Your task to perform on an android device: turn on priority inbox in the gmail app Image 0: 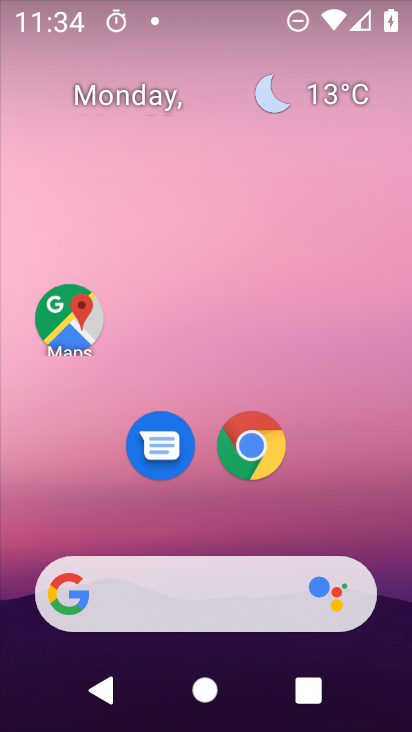
Step 0: drag from (214, 447) to (321, 33)
Your task to perform on an android device: turn on priority inbox in the gmail app Image 1: 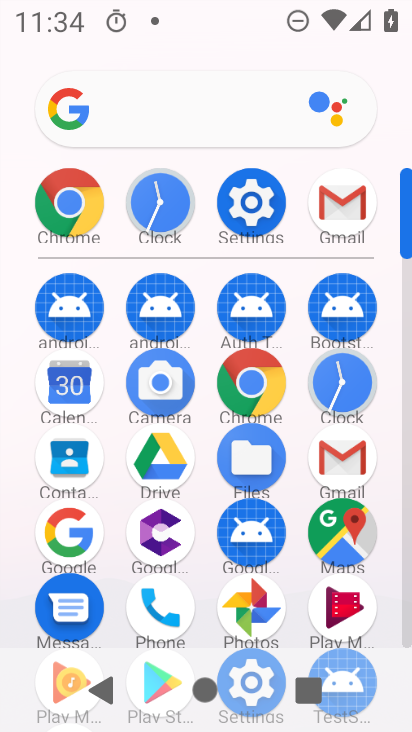
Step 1: click (332, 198)
Your task to perform on an android device: turn on priority inbox in the gmail app Image 2: 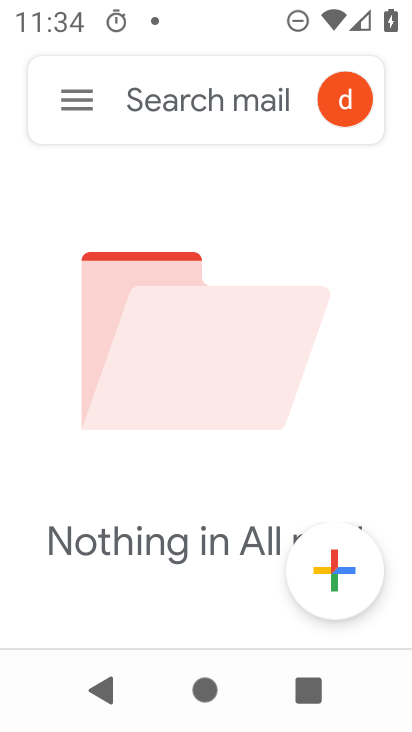
Step 2: click (80, 98)
Your task to perform on an android device: turn on priority inbox in the gmail app Image 3: 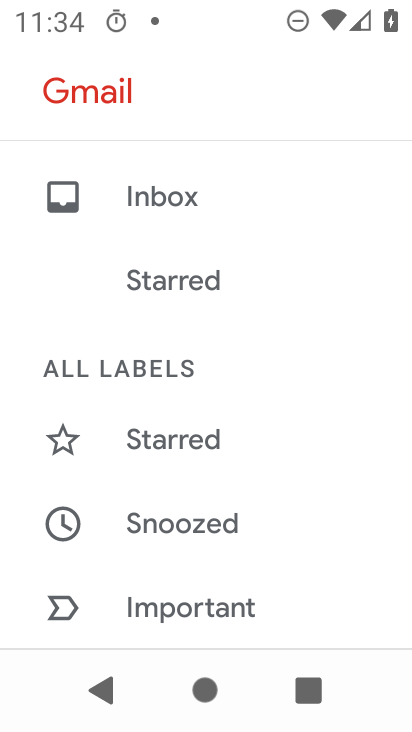
Step 3: drag from (172, 599) to (262, 91)
Your task to perform on an android device: turn on priority inbox in the gmail app Image 4: 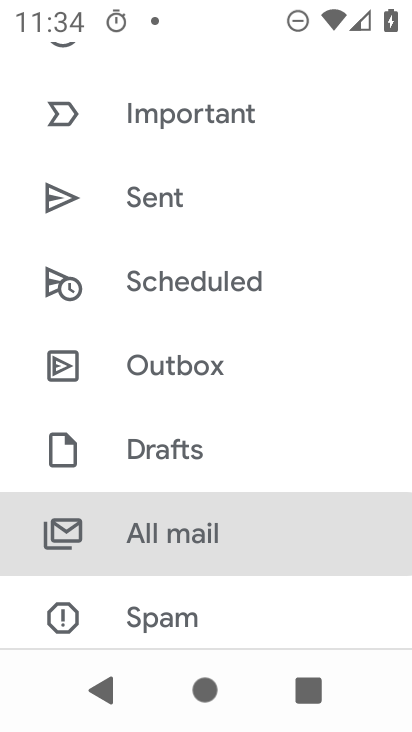
Step 4: drag from (218, 495) to (291, 1)
Your task to perform on an android device: turn on priority inbox in the gmail app Image 5: 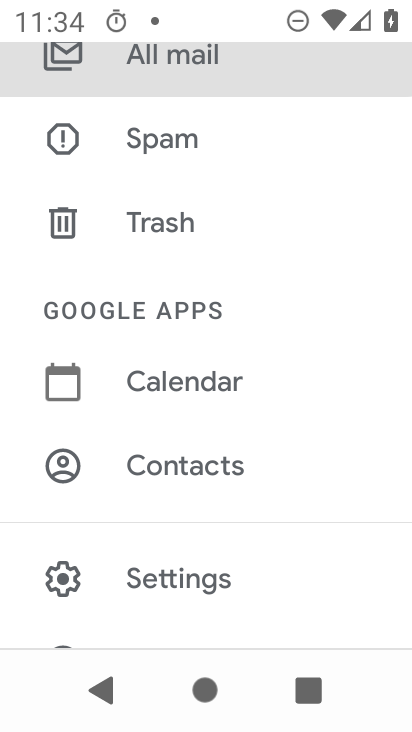
Step 5: click (185, 580)
Your task to perform on an android device: turn on priority inbox in the gmail app Image 6: 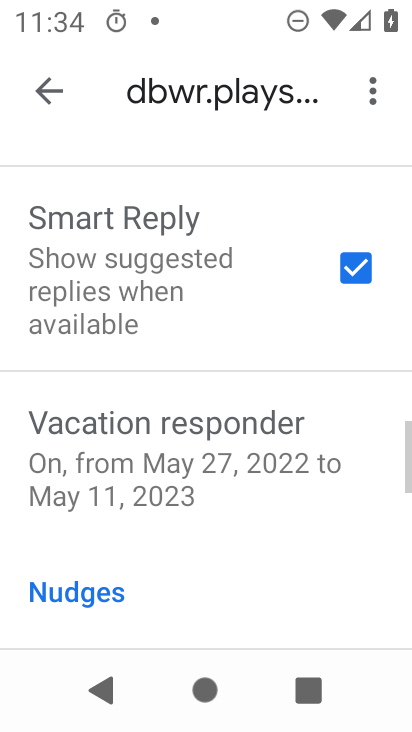
Step 6: drag from (176, 234) to (191, 713)
Your task to perform on an android device: turn on priority inbox in the gmail app Image 7: 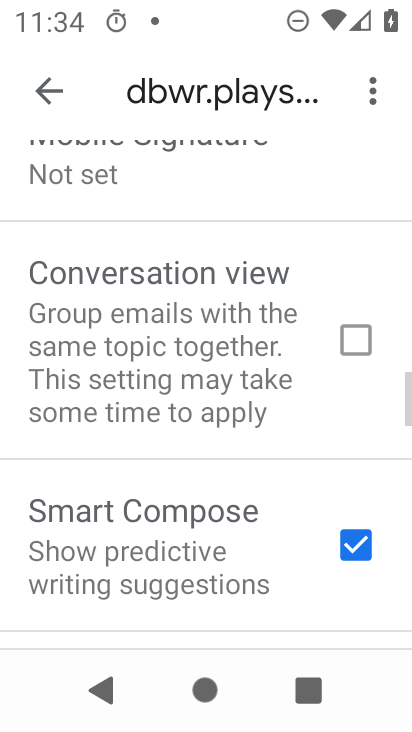
Step 7: drag from (220, 254) to (176, 695)
Your task to perform on an android device: turn on priority inbox in the gmail app Image 8: 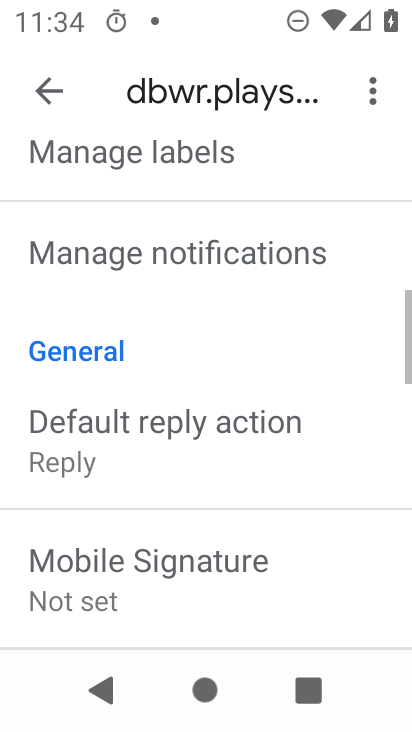
Step 8: drag from (198, 265) to (126, 724)
Your task to perform on an android device: turn on priority inbox in the gmail app Image 9: 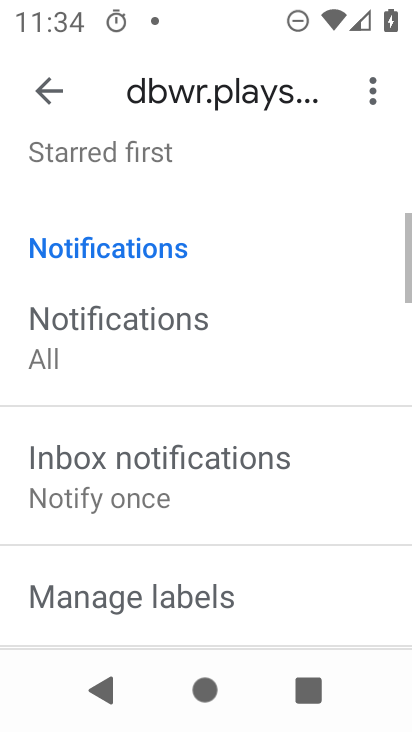
Step 9: drag from (183, 235) to (161, 695)
Your task to perform on an android device: turn on priority inbox in the gmail app Image 10: 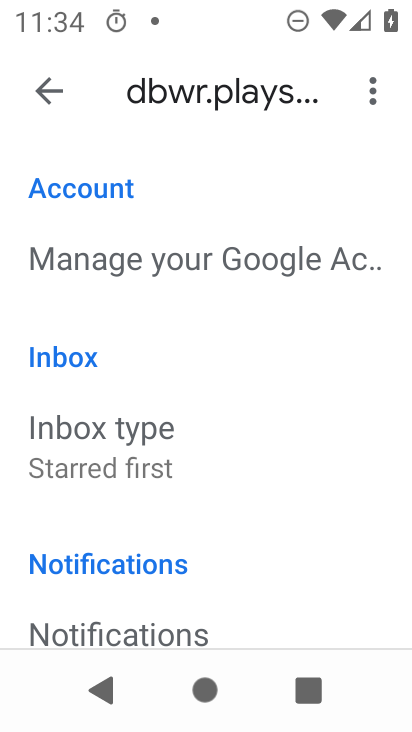
Step 10: drag from (181, 249) to (155, 701)
Your task to perform on an android device: turn on priority inbox in the gmail app Image 11: 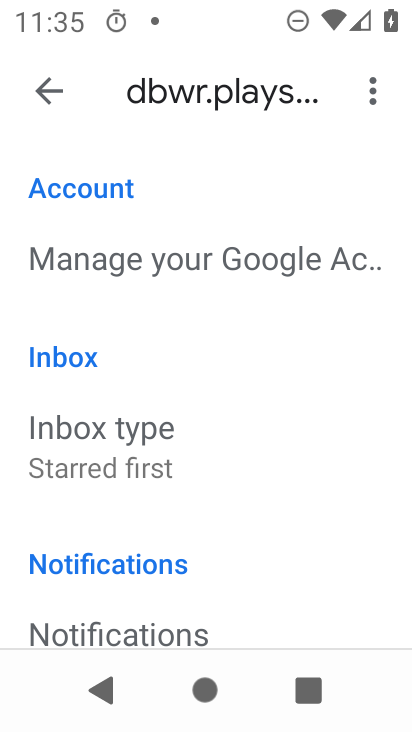
Step 11: click (139, 462)
Your task to perform on an android device: turn on priority inbox in the gmail app Image 12: 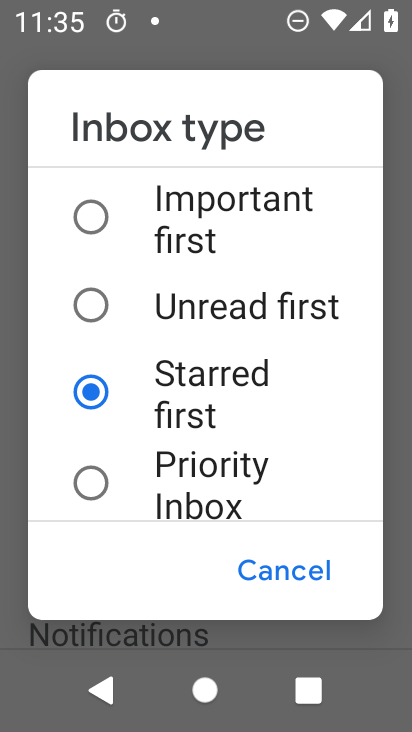
Step 12: click (96, 481)
Your task to perform on an android device: turn on priority inbox in the gmail app Image 13: 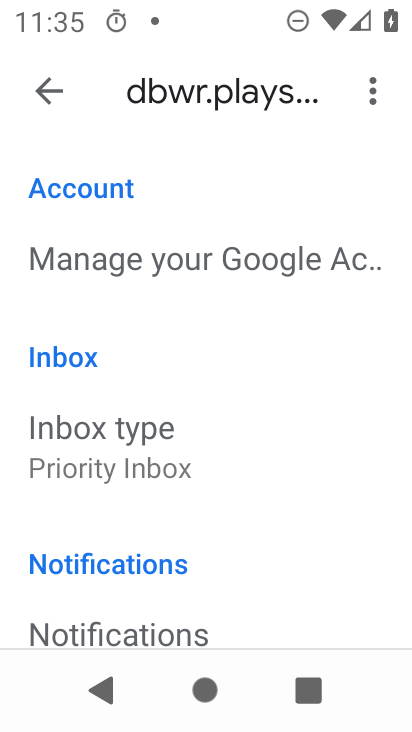
Step 13: task complete